Your task to perform on an android device: Open CNN.com Image 0: 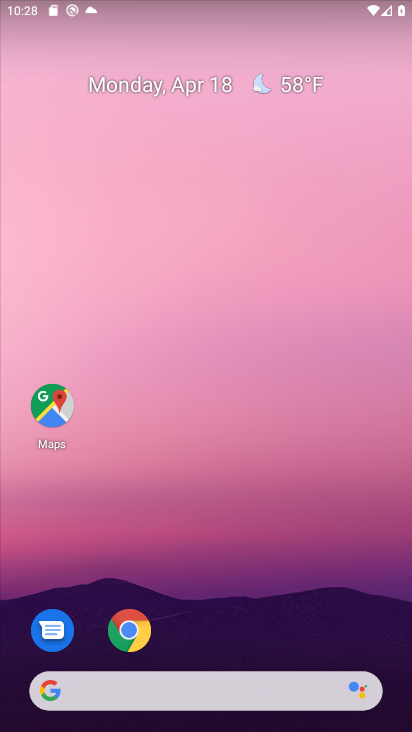
Step 0: click (142, 619)
Your task to perform on an android device: Open CNN.com Image 1: 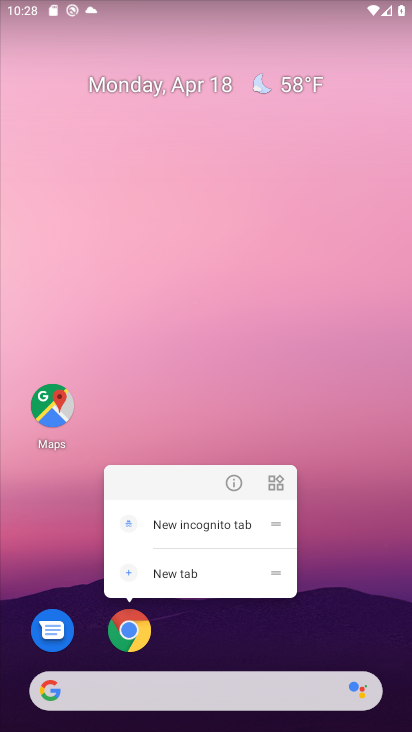
Step 1: click (142, 619)
Your task to perform on an android device: Open CNN.com Image 2: 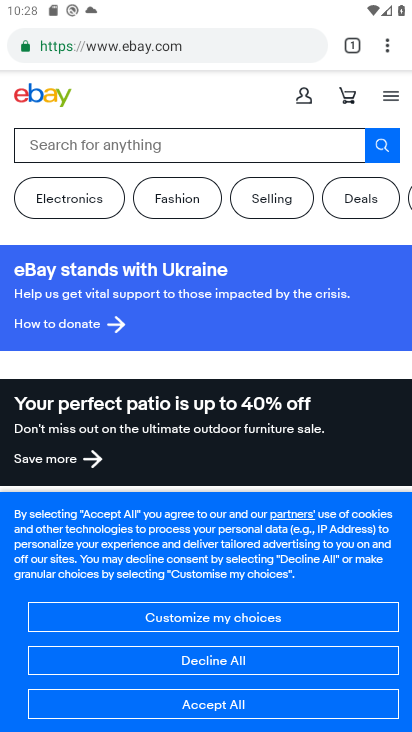
Step 2: click (357, 46)
Your task to perform on an android device: Open CNN.com Image 3: 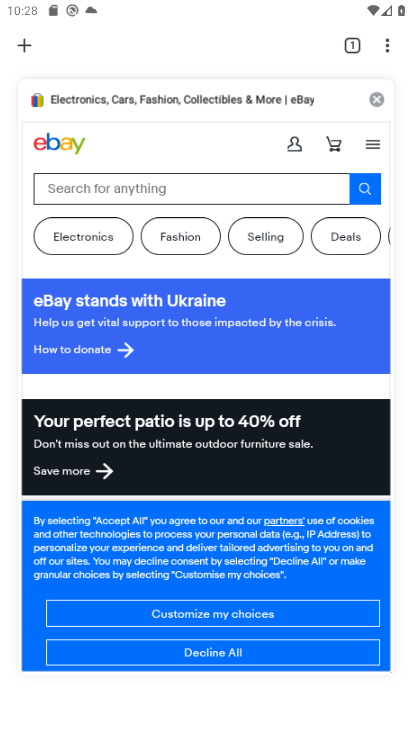
Step 3: click (27, 46)
Your task to perform on an android device: Open CNN.com Image 4: 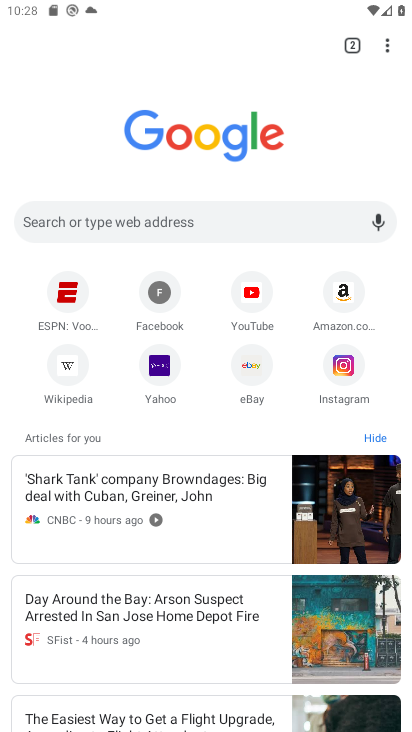
Step 4: click (133, 218)
Your task to perform on an android device: Open CNN.com Image 5: 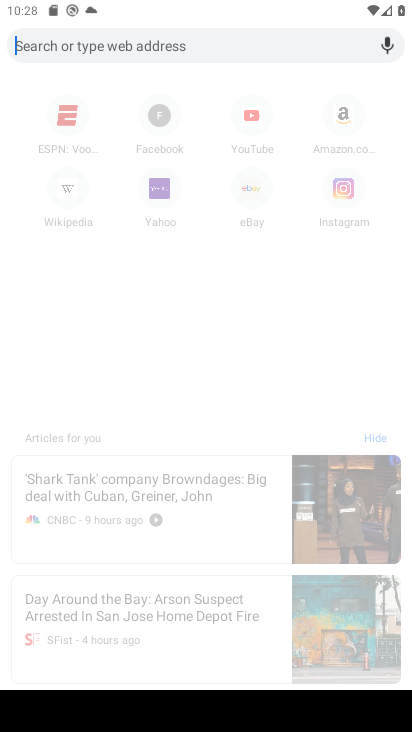
Step 5: type "cnn.com"
Your task to perform on an android device: Open CNN.com Image 6: 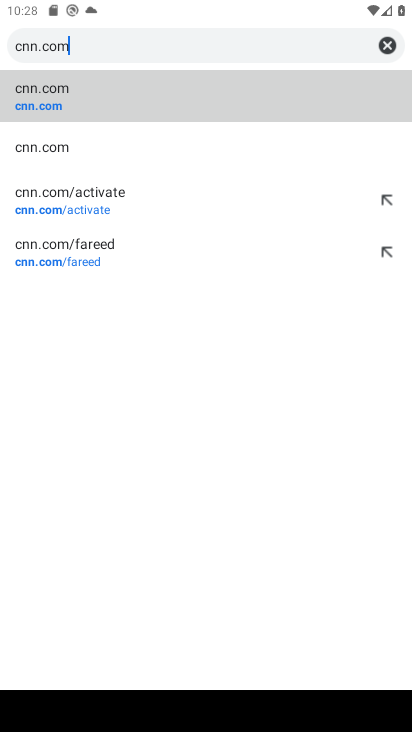
Step 6: click (60, 107)
Your task to perform on an android device: Open CNN.com Image 7: 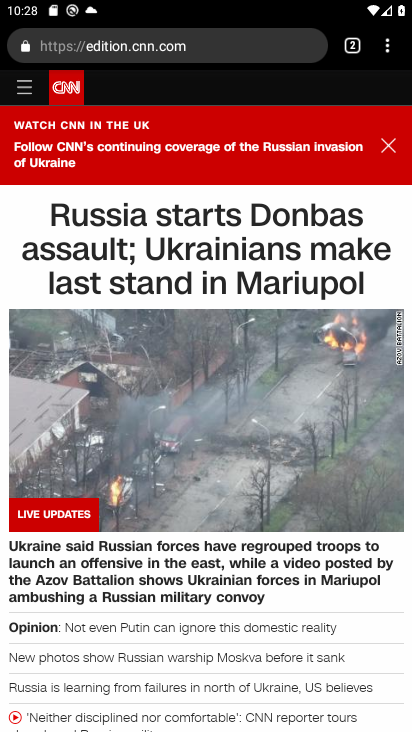
Step 7: task complete